Your task to perform on an android device: Open Reddit.com Image 0: 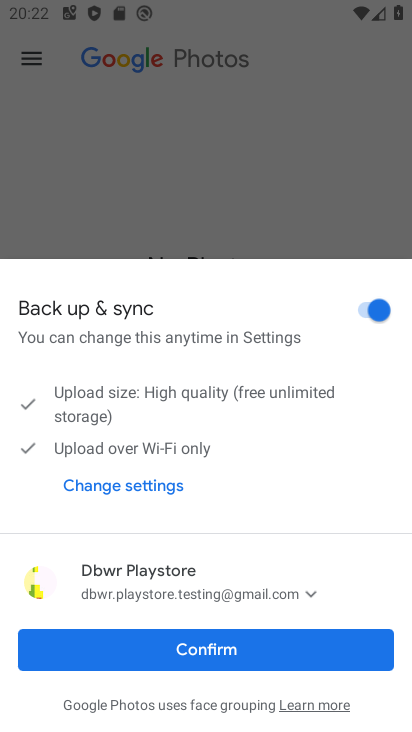
Step 0: click (296, 650)
Your task to perform on an android device: Open Reddit.com Image 1: 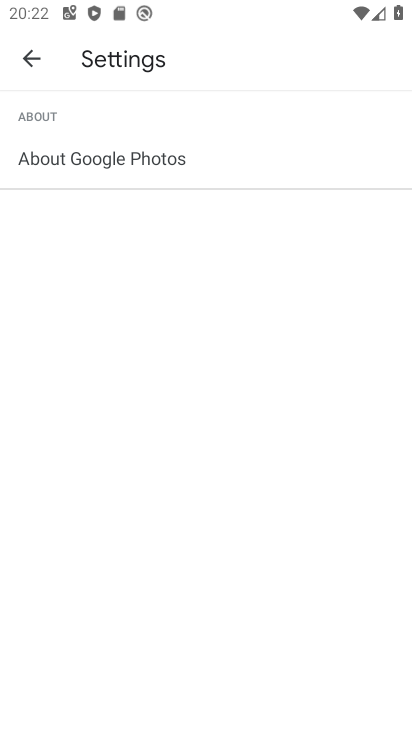
Step 1: press home button
Your task to perform on an android device: Open Reddit.com Image 2: 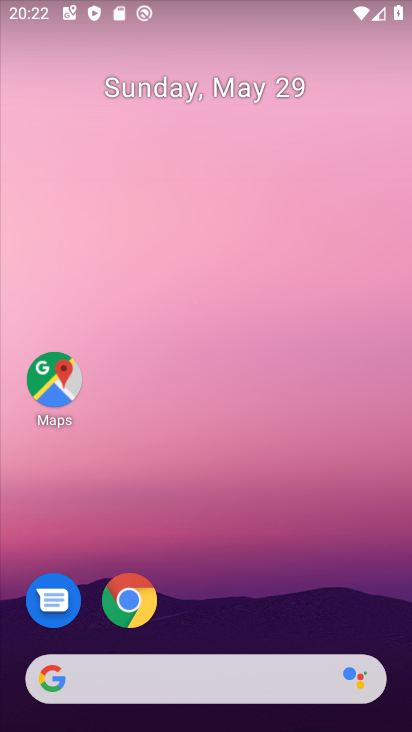
Step 2: drag from (252, 600) to (228, 116)
Your task to perform on an android device: Open Reddit.com Image 3: 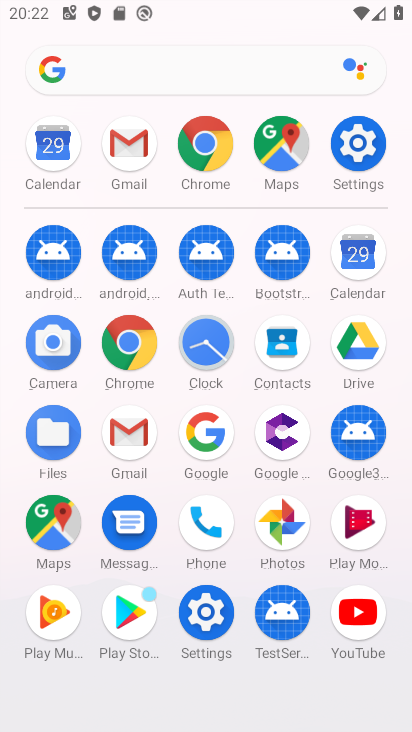
Step 3: click (194, 139)
Your task to perform on an android device: Open Reddit.com Image 4: 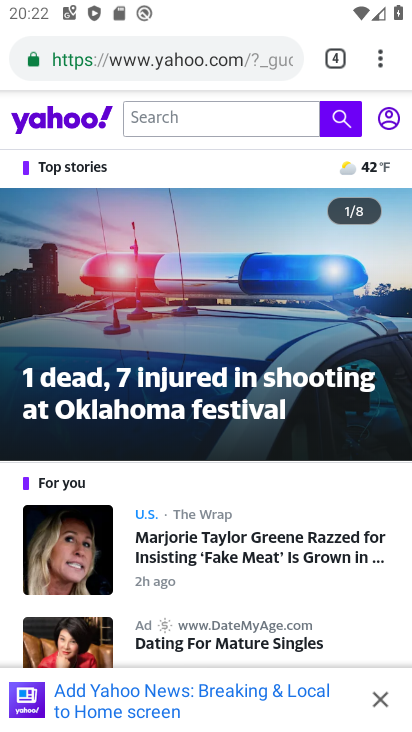
Step 4: click (194, 57)
Your task to perform on an android device: Open Reddit.com Image 5: 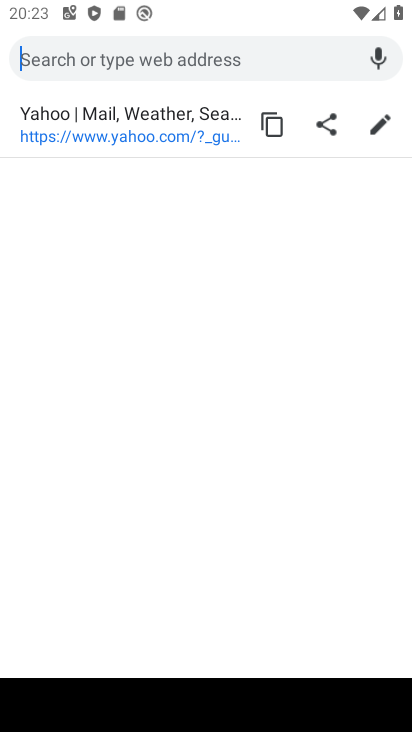
Step 5: type "reddit.com"
Your task to perform on an android device: Open Reddit.com Image 6: 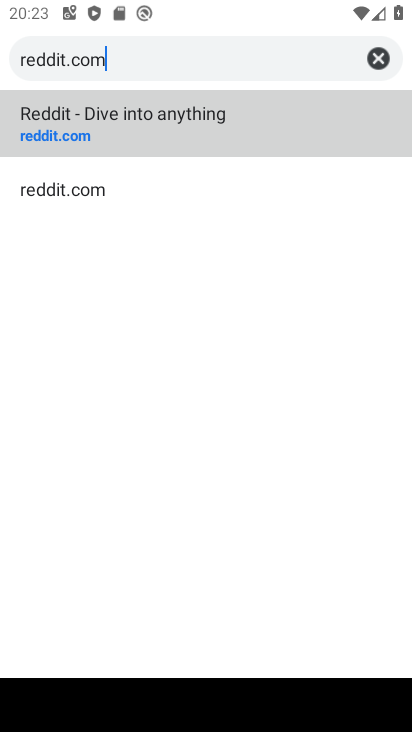
Step 6: click (140, 117)
Your task to perform on an android device: Open Reddit.com Image 7: 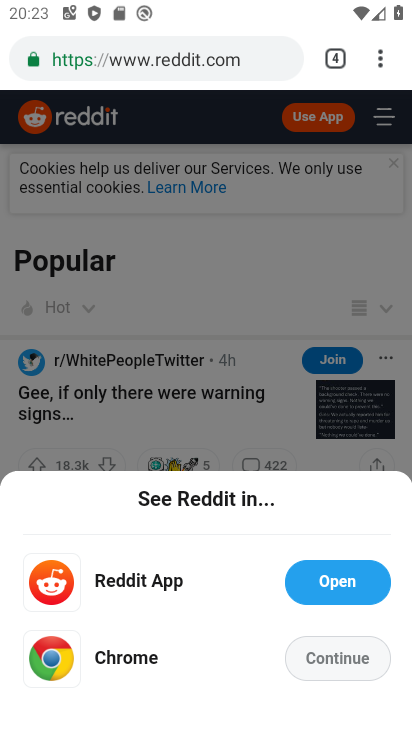
Step 7: task complete